Your task to perform on an android device: See recent photos Image 0: 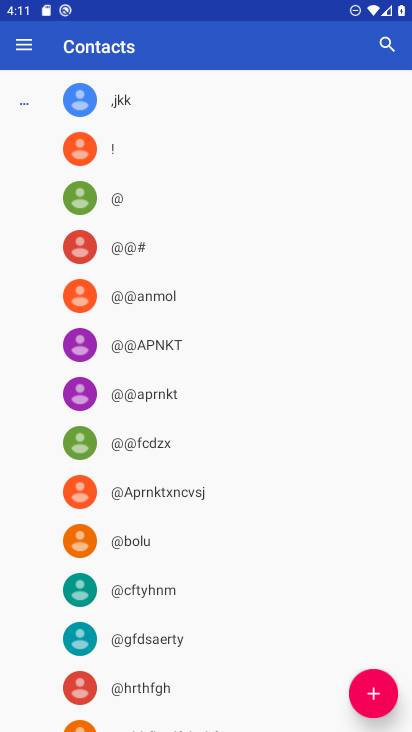
Step 0: press home button
Your task to perform on an android device: See recent photos Image 1: 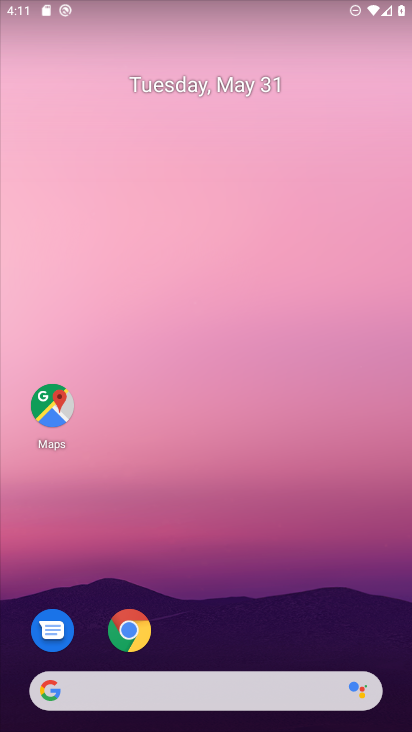
Step 1: drag from (247, 651) to (318, 215)
Your task to perform on an android device: See recent photos Image 2: 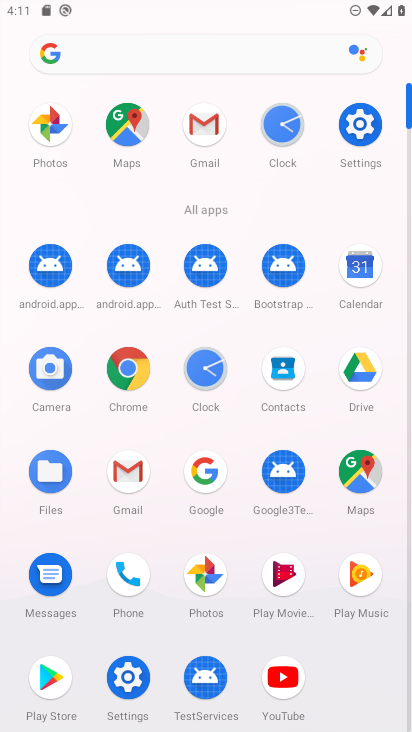
Step 2: click (201, 575)
Your task to perform on an android device: See recent photos Image 3: 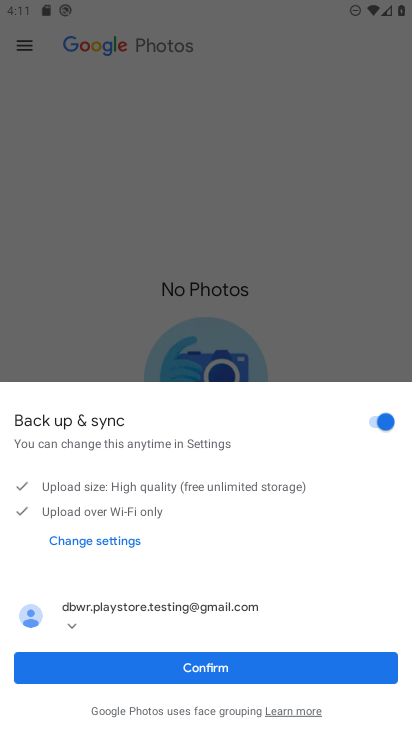
Step 3: click (262, 672)
Your task to perform on an android device: See recent photos Image 4: 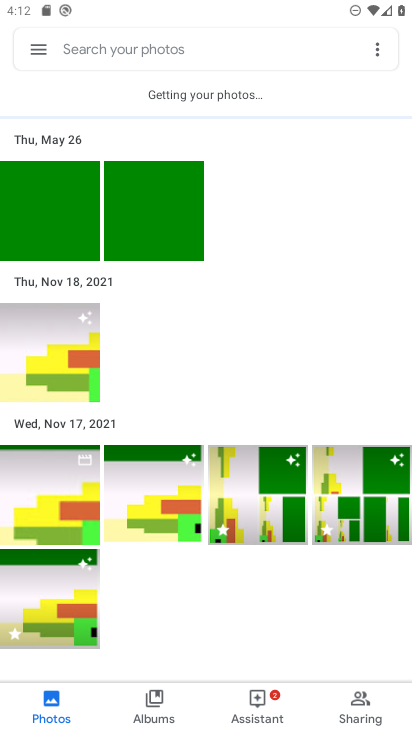
Step 4: task complete